Your task to perform on an android device: When is my next meeting? Image 0: 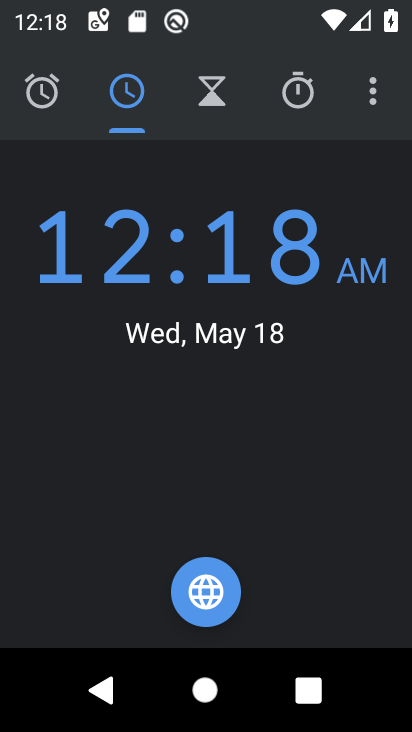
Step 0: press home button
Your task to perform on an android device: When is my next meeting? Image 1: 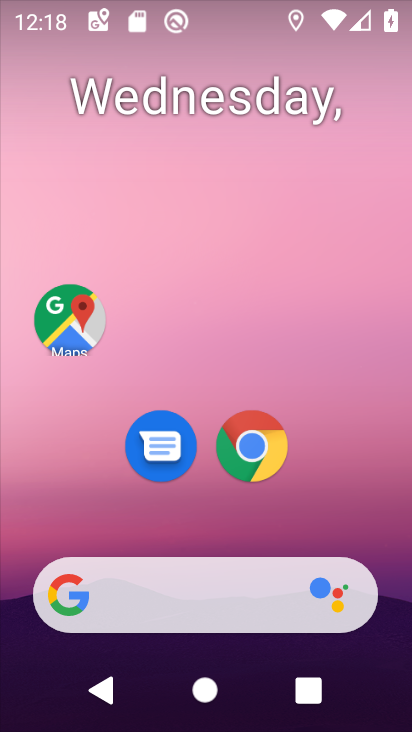
Step 1: drag from (354, 479) to (333, 16)
Your task to perform on an android device: When is my next meeting? Image 2: 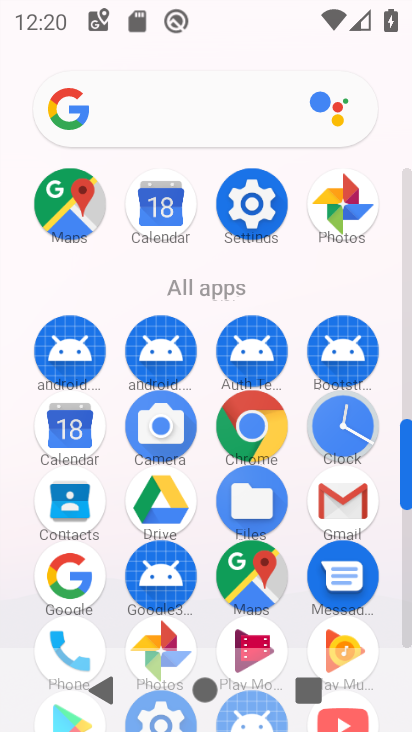
Step 2: click (171, 207)
Your task to perform on an android device: When is my next meeting? Image 3: 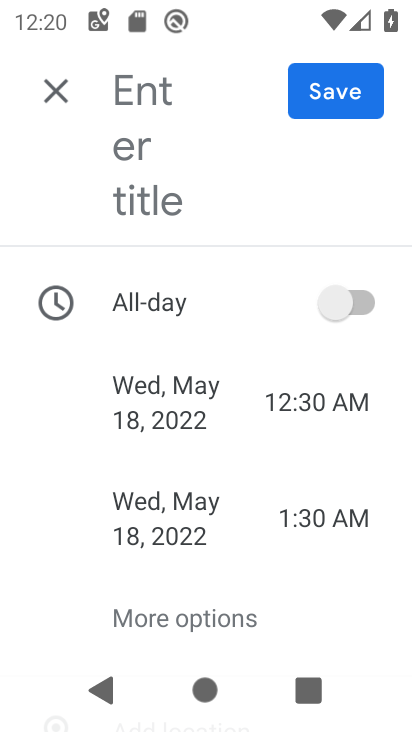
Step 3: click (51, 88)
Your task to perform on an android device: When is my next meeting? Image 4: 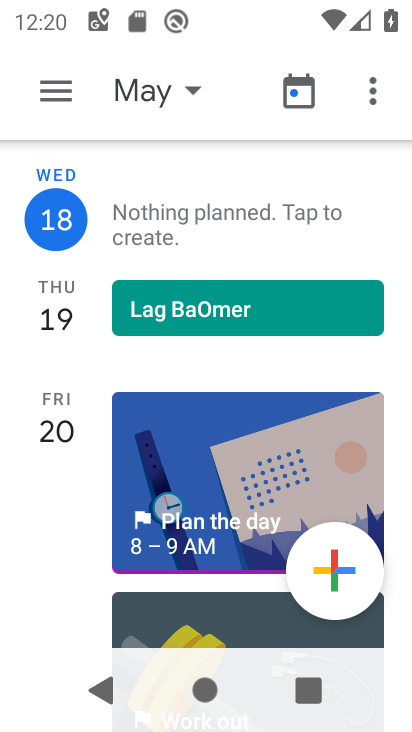
Step 4: drag from (216, 484) to (209, 164)
Your task to perform on an android device: When is my next meeting? Image 5: 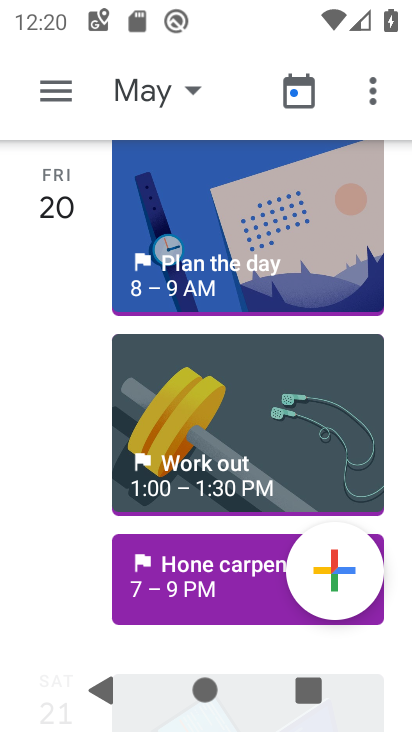
Step 5: drag from (174, 415) to (181, 124)
Your task to perform on an android device: When is my next meeting? Image 6: 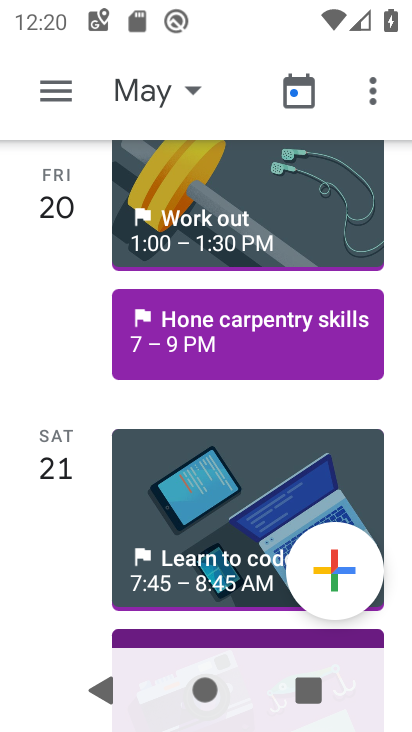
Step 6: click (174, 360)
Your task to perform on an android device: When is my next meeting? Image 7: 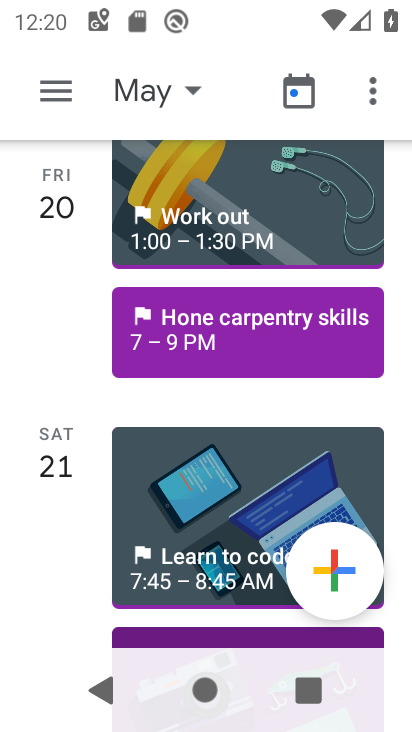
Step 7: click (196, 345)
Your task to perform on an android device: When is my next meeting? Image 8: 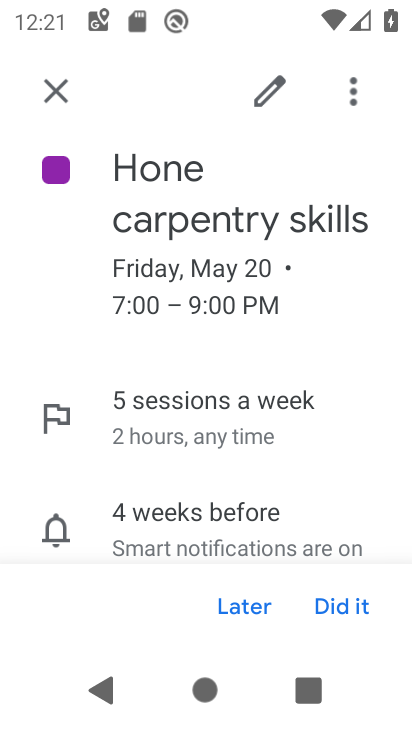
Step 8: task complete